Your task to perform on an android device: empty trash in the gmail app Image 0: 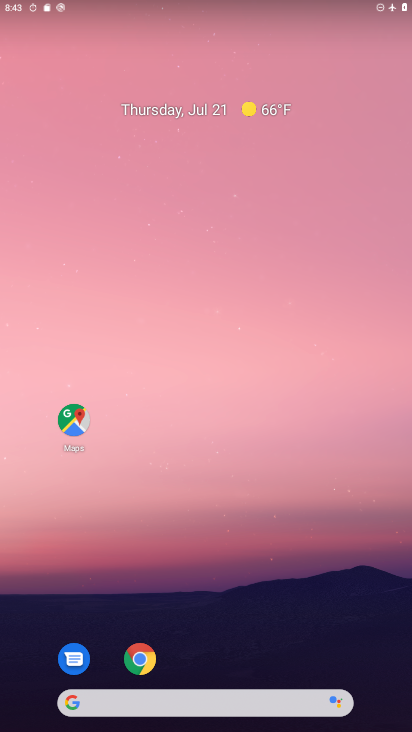
Step 0: drag from (184, 660) to (250, 242)
Your task to perform on an android device: empty trash in the gmail app Image 1: 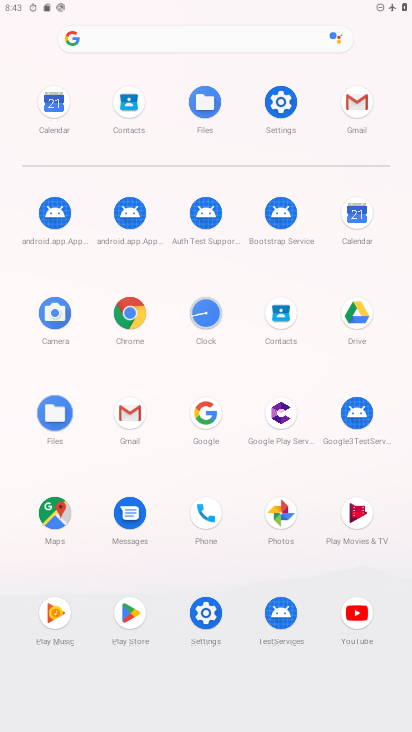
Step 1: click (122, 404)
Your task to perform on an android device: empty trash in the gmail app Image 2: 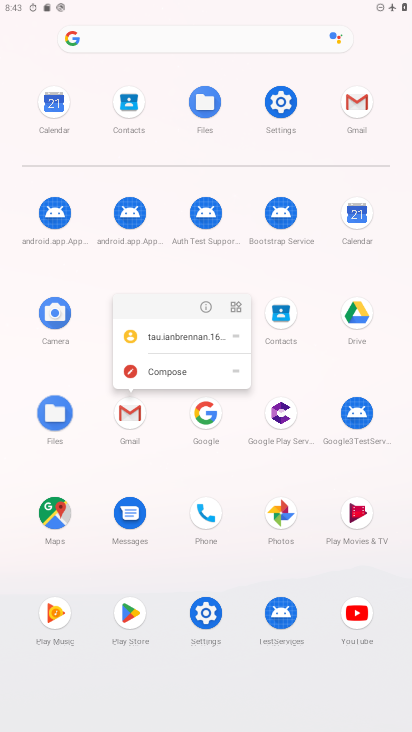
Step 2: click (202, 302)
Your task to perform on an android device: empty trash in the gmail app Image 3: 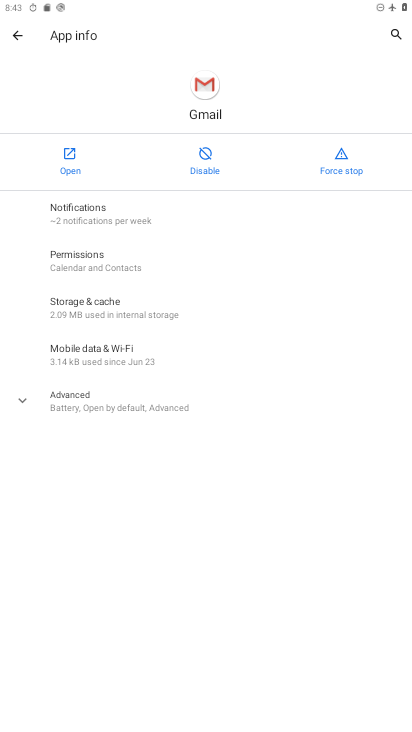
Step 3: click (62, 166)
Your task to perform on an android device: empty trash in the gmail app Image 4: 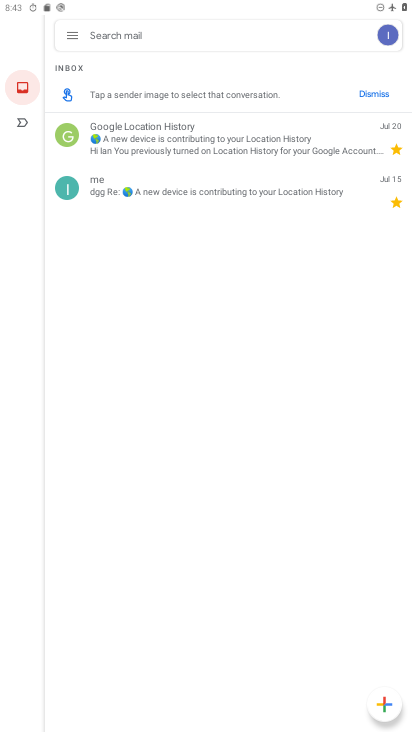
Step 4: click (67, 33)
Your task to perform on an android device: empty trash in the gmail app Image 5: 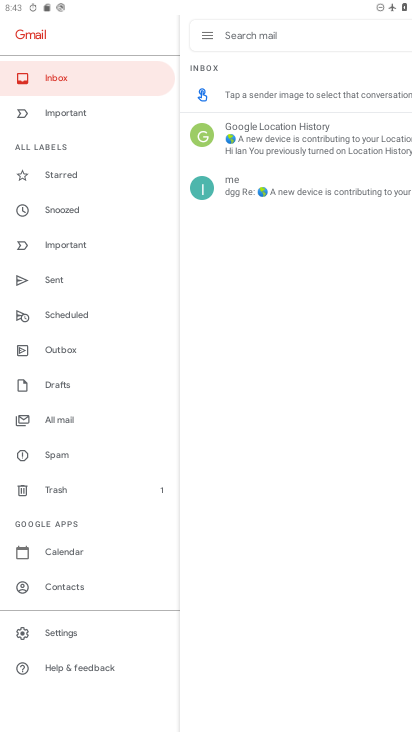
Step 5: click (62, 484)
Your task to perform on an android device: empty trash in the gmail app Image 6: 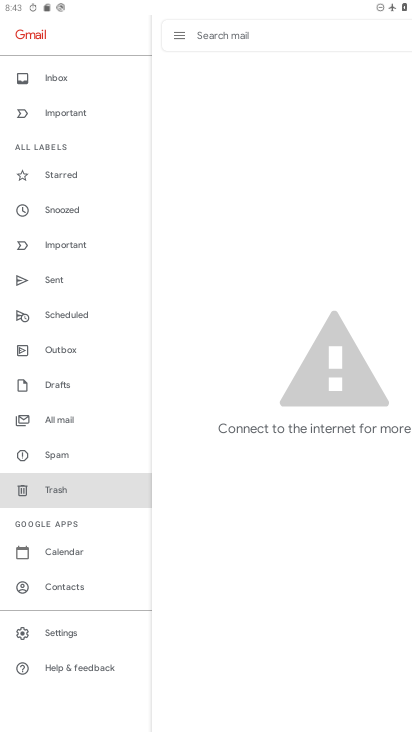
Step 6: click (159, 30)
Your task to perform on an android device: empty trash in the gmail app Image 7: 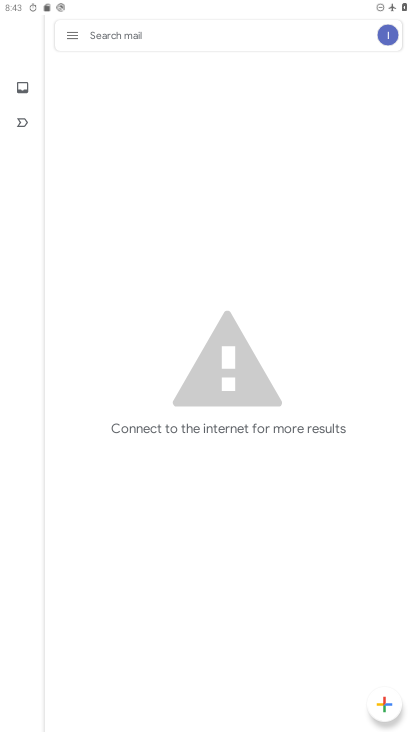
Step 7: click (242, 518)
Your task to perform on an android device: empty trash in the gmail app Image 8: 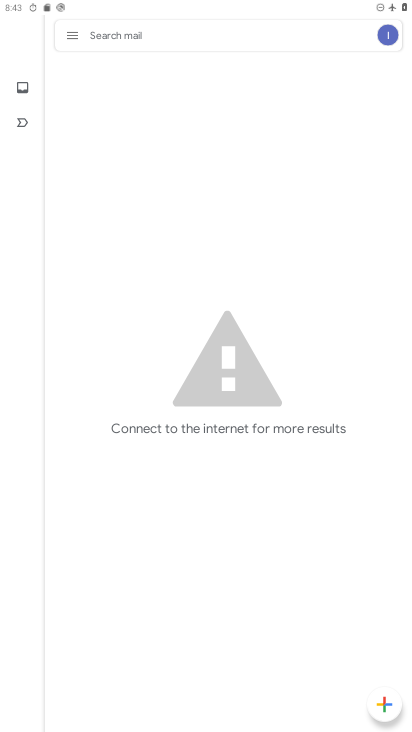
Step 8: task complete